Your task to perform on an android device: add a contact in the contacts app Image 0: 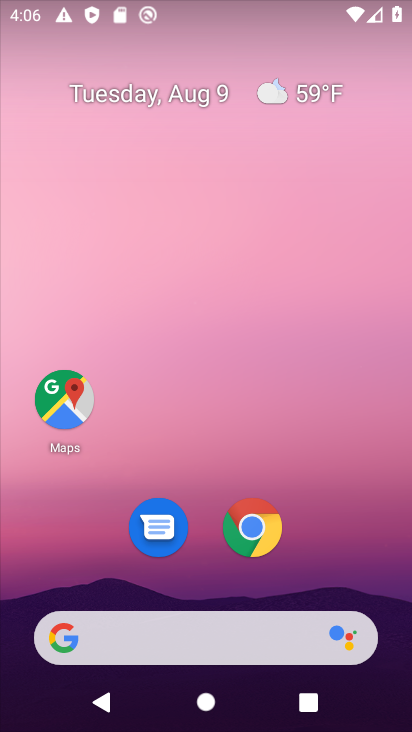
Step 0: drag from (212, 471) to (261, 245)
Your task to perform on an android device: add a contact in the contacts app Image 1: 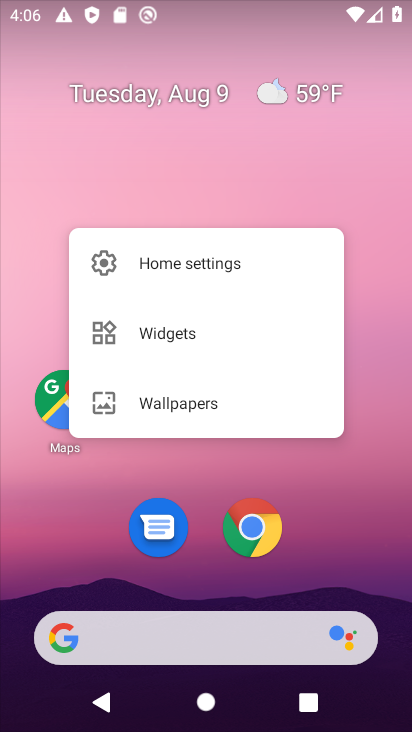
Step 1: click (195, 490)
Your task to perform on an android device: add a contact in the contacts app Image 2: 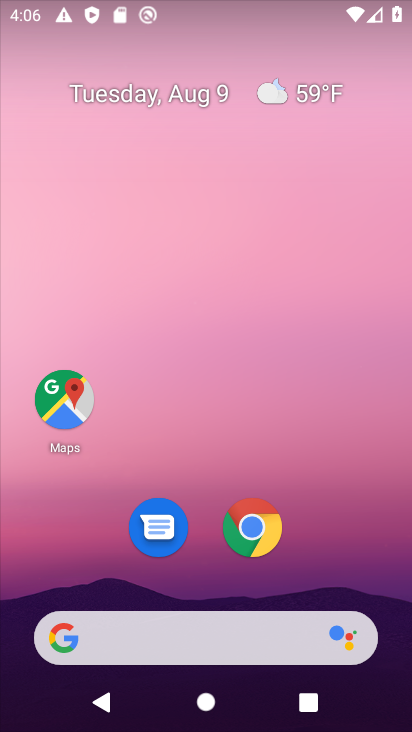
Step 2: drag from (195, 490) to (194, 97)
Your task to perform on an android device: add a contact in the contacts app Image 3: 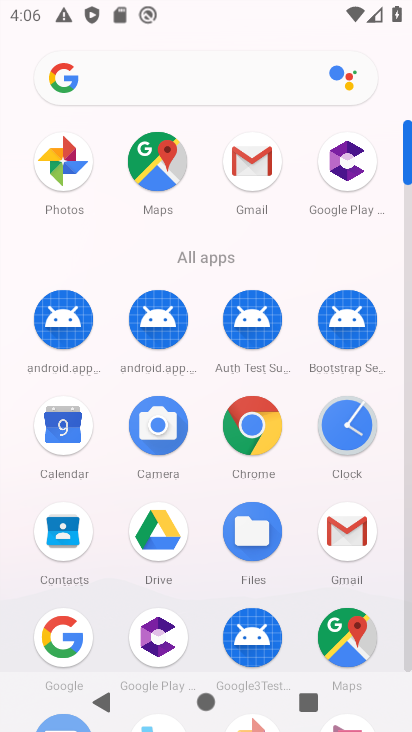
Step 3: click (104, 529)
Your task to perform on an android device: add a contact in the contacts app Image 4: 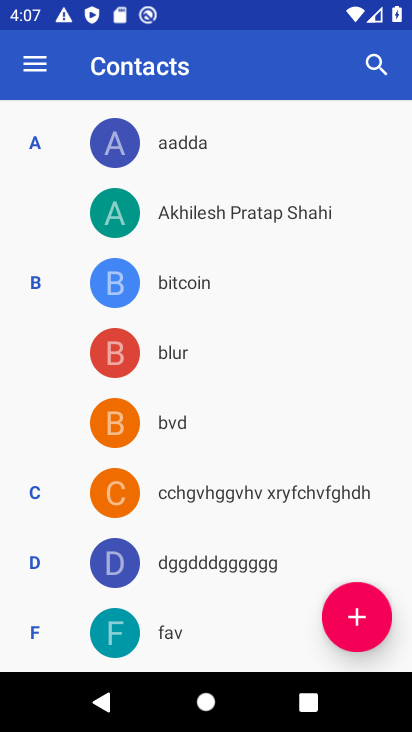
Step 4: click (308, 585)
Your task to perform on an android device: add a contact in the contacts app Image 5: 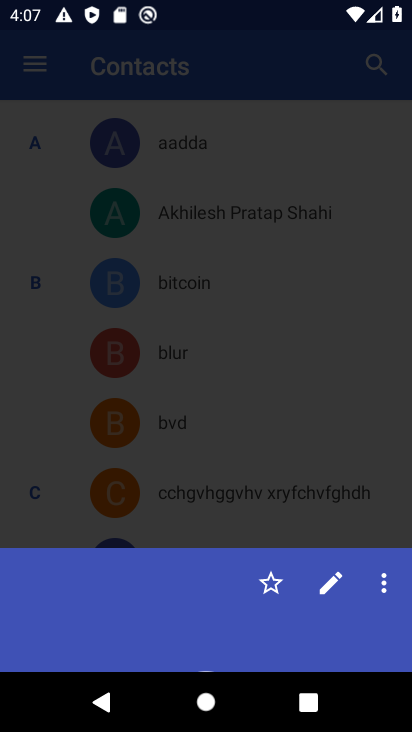
Step 5: click (340, 630)
Your task to perform on an android device: add a contact in the contacts app Image 6: 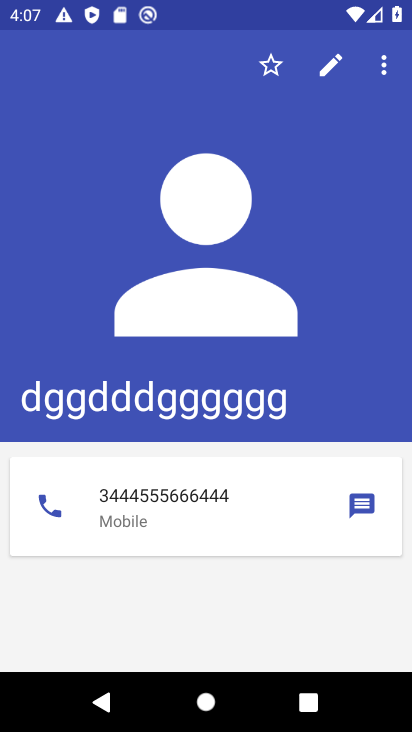
Step 6: press back button
Your task to perform on an android device: add a contact in the contacts app Image 7: 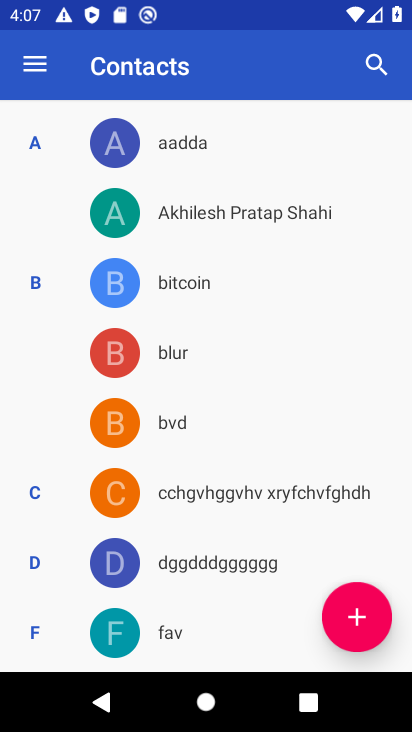
Step 7: click (359, 620)
Your task to perform on an android device: add a contact in the contacts app Image 8: 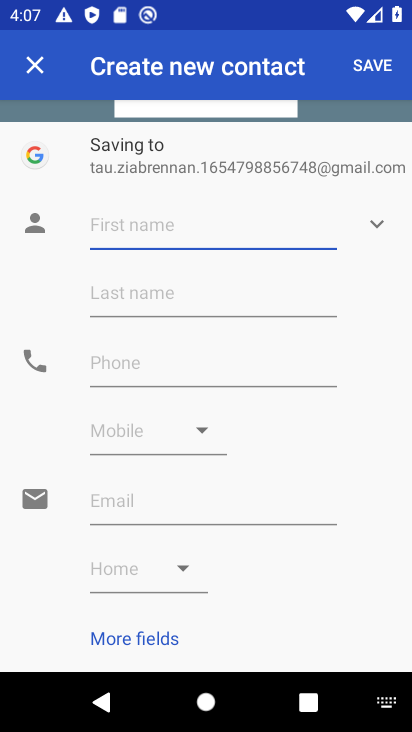
Step 8: type "oikjhgfdfgbn"
Your task to perform on an android device: add a contact in the contacts app Image 9: 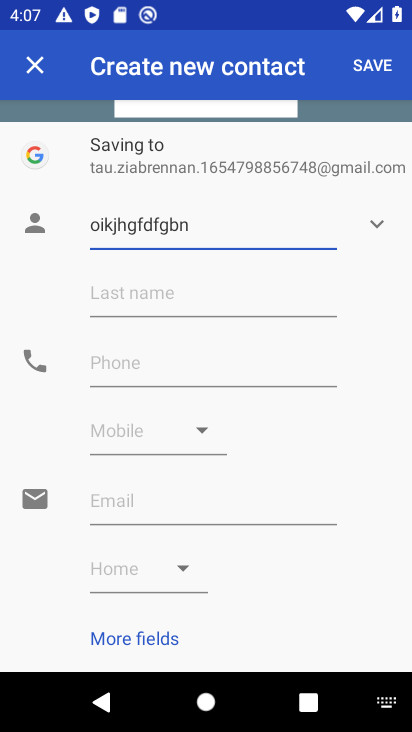
Step 9: click (158, 352)
Your task to perform on an android device: add a contact in the contacts app Image 10: 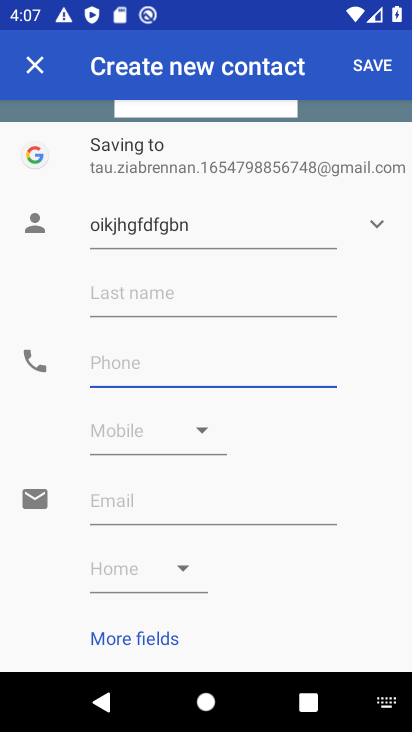
Step 10: type "3344567778"
Your task to perform on an android device: add a contact in the contacts app Image 11: 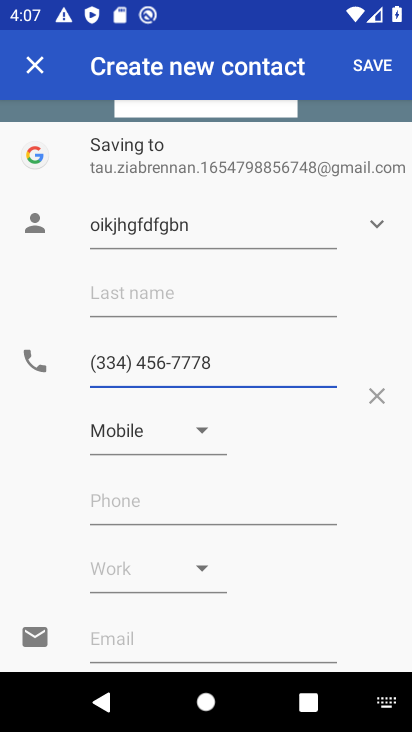
Step 11: click (391, 52)
Your task to perform on an android device: add a contact in the contacts app Image 12: 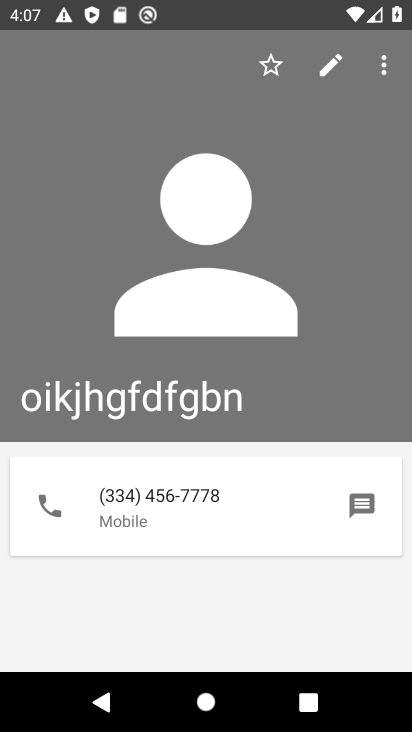
Step 12: task complete